Your task to perform on an android device: toggle airplane mode Image 0: 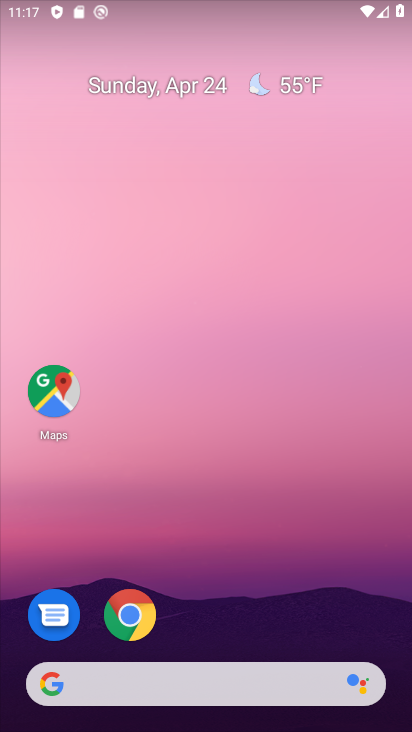
Step 0: drag from (217, 638) to (199, 75)
Your task to perform on an android device: toggle airplane mode Image 1: 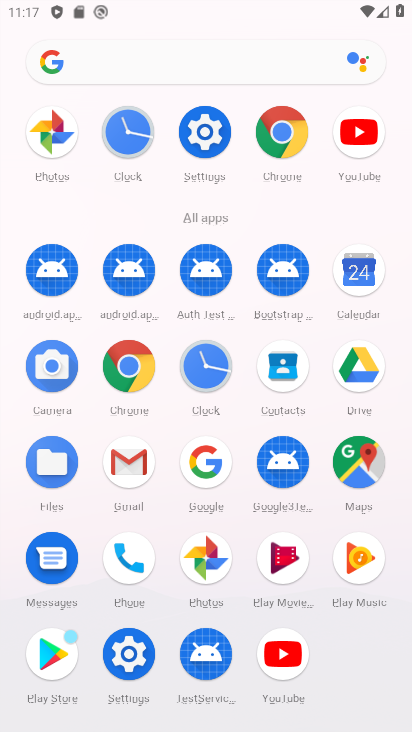
Step 1: drag from (214, 5) to (214, 563)
Your task to perform on an android device: toggle airplane mode Image 2: 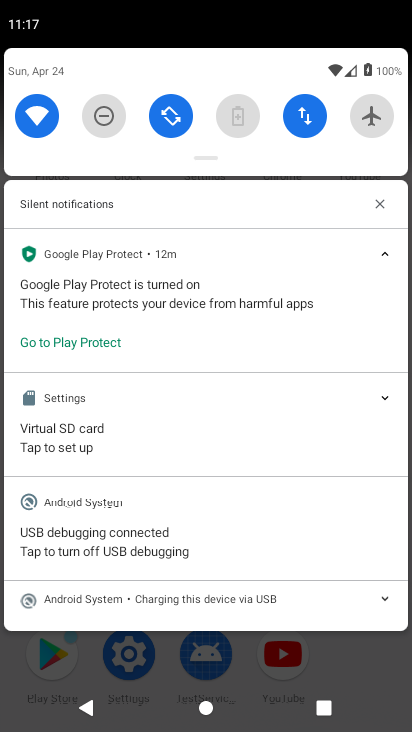
Step 2: click (370, 110)
Your task to perform on an android device: toggle airplane mode Image 3: 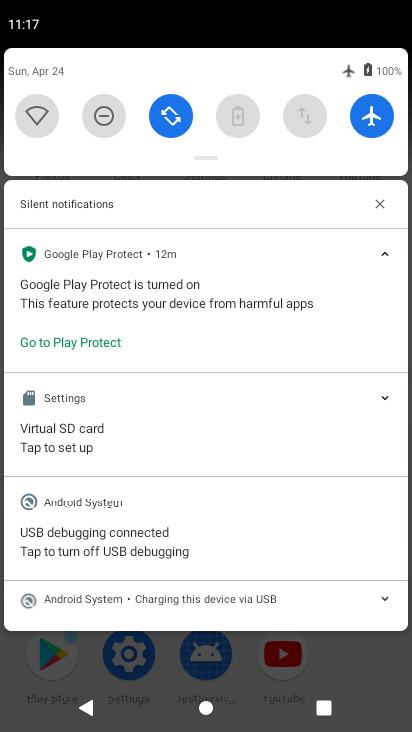
Step 3: task complete